Your task to perform on an android device: toggle sleep mode Image 0: 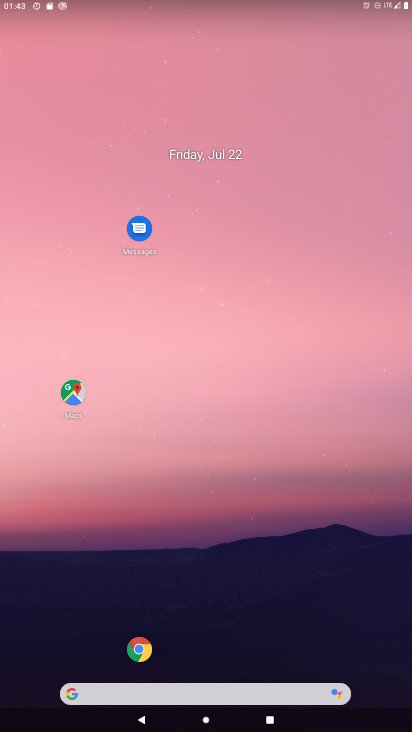
Step 0: drag from (94, 518) to (167, 197)
Your task to perform on an android device: toggle sleep mode Image 1: 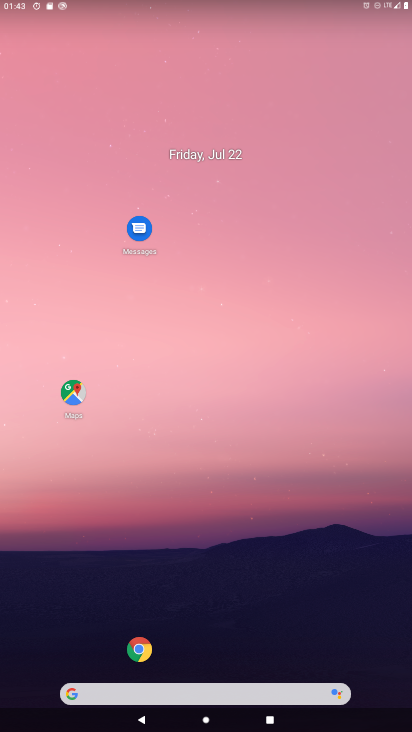
Step 1: drag from (34, 669) to (259, 141)
Your task to perform on an android device: toggle sleep mode Image 2: 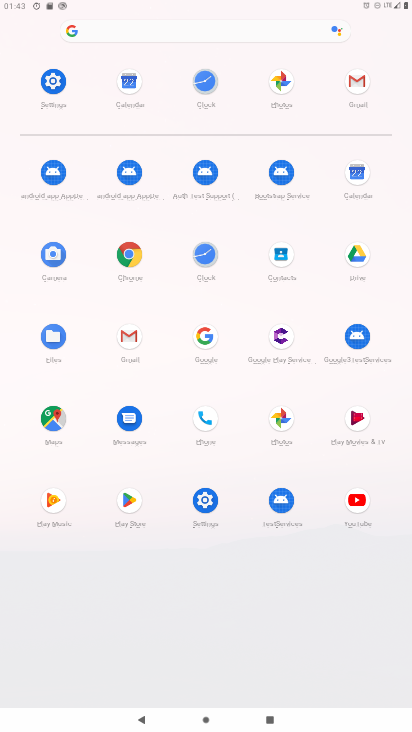
Step 2: click (204, 507)
Your task to perform on an android device: toggle sleep mode Image 3: 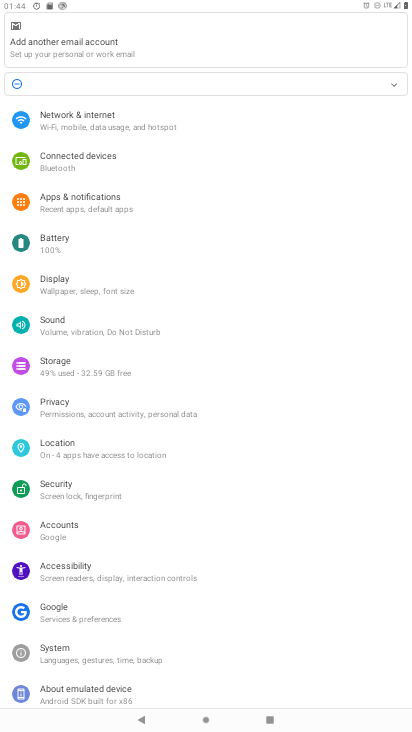
Step 3: task complete